Your task to perform on an android device: Open calendar and show me the third week of next month Image 0: 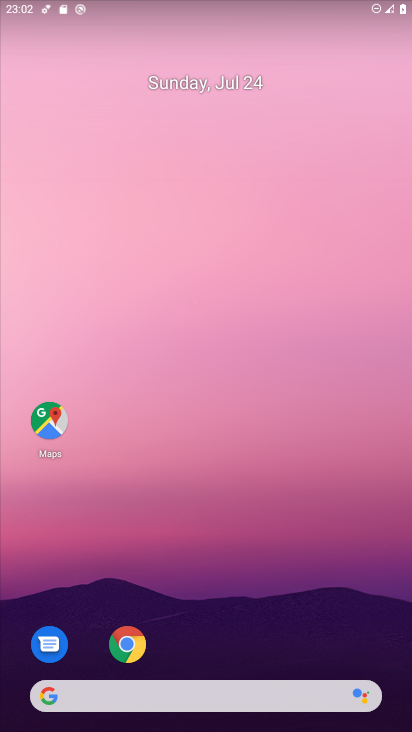
Step 0: drag from (372, 641) to (273, 26)
Your task to perform on an android device: Open calendar and show me the third week of next month Image 1: 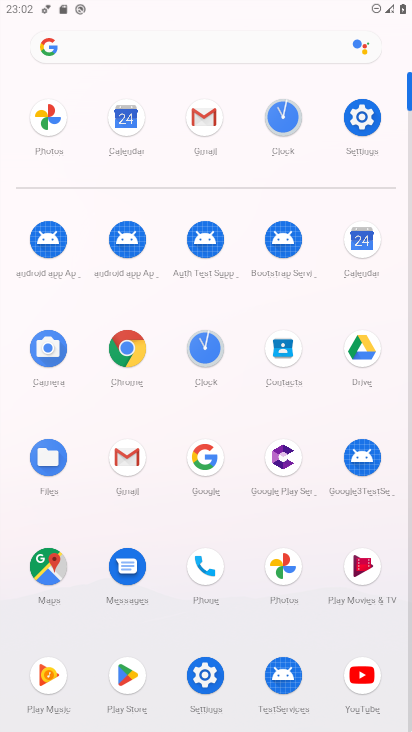
Step 1: click (361, 241)
Your task to perform on an android device: Open calendar and show me the third week of next month Image 2: 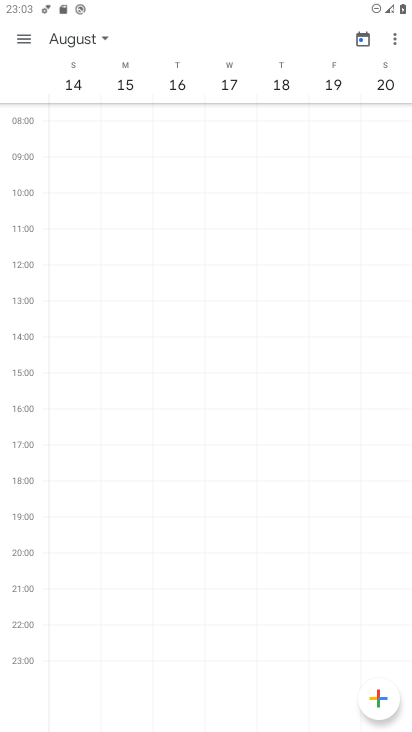
Step 2: click (104, 43)
Your task to perform on an android device: Open calendar and show me the third week of next month Image 3: 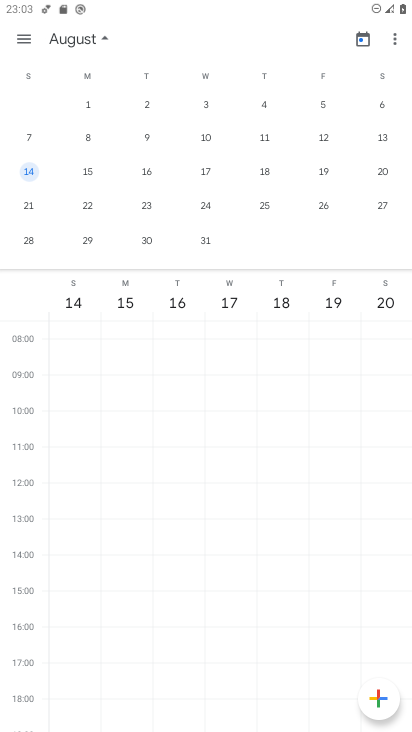
Step 3: click (26, 206)
Your task to perform on an android device: Open calendar and show me the third week of next month Image 4: 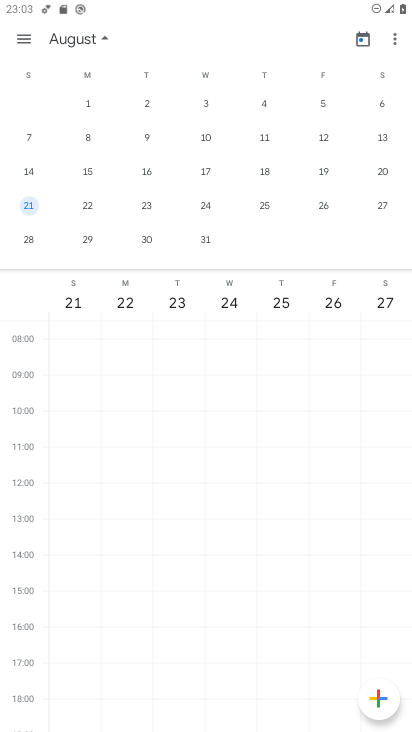
Step 4: task complete